Your task to perform on an android device: Show me productivity apps on the Play Store Image 0: 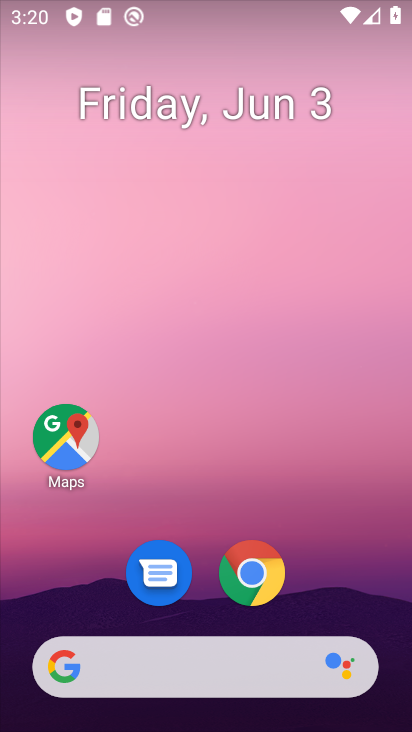
Step 0: drag from (345, 451) to (349, 298)
Your task to perform on an android device: Show me productivity apps on the Play Store Image 1: 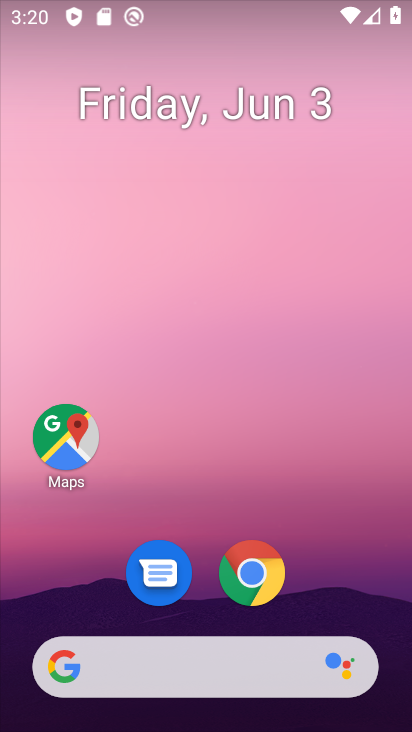
Step 1: drag from (393, 686) to (389, 308)
Your task to perform on an android device: Show me productivity apps on the Play Store Image 2: 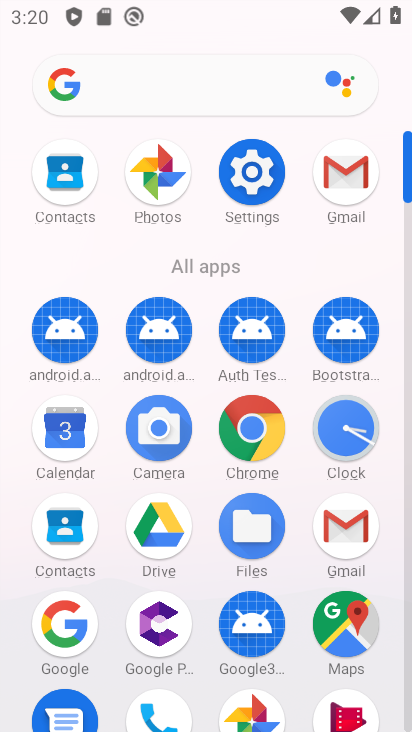
Step 2: drag from (181, 590) to (175, 310)
Your task to perform on an android device: Show me productivity apps on the Play Store Image 3: 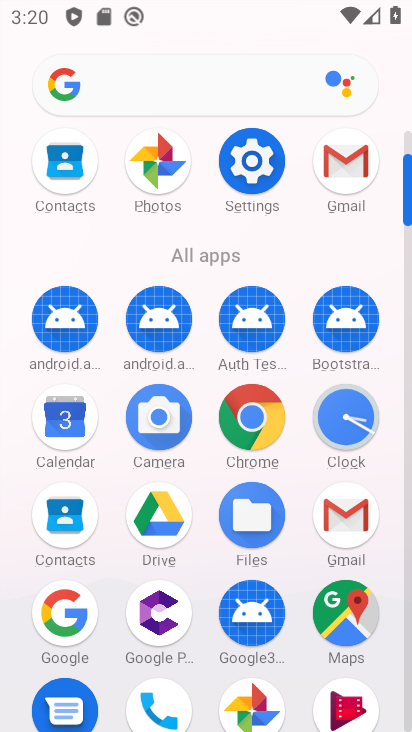
Step 3: drag from (202, 694) to (186, 364)
Your task to perform on an android device: Show me productivity apps on the Play Store Image 4: 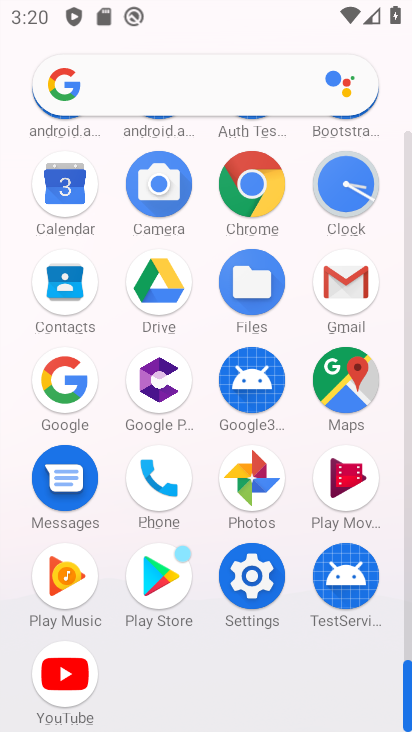
Step 4: click (168, 573)
Your task to perform on an android device: Show me productivity apps on the Play Store Image 5: 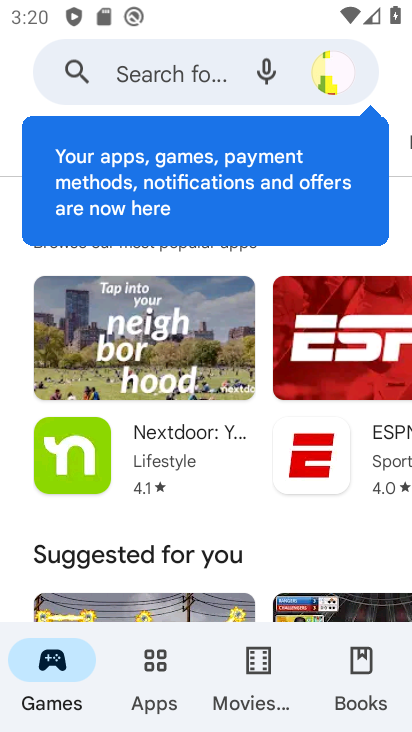
Step 5: click (187, 81)
Your task to perform on an android device: Show me productivity apps on the Play Store Image 6: 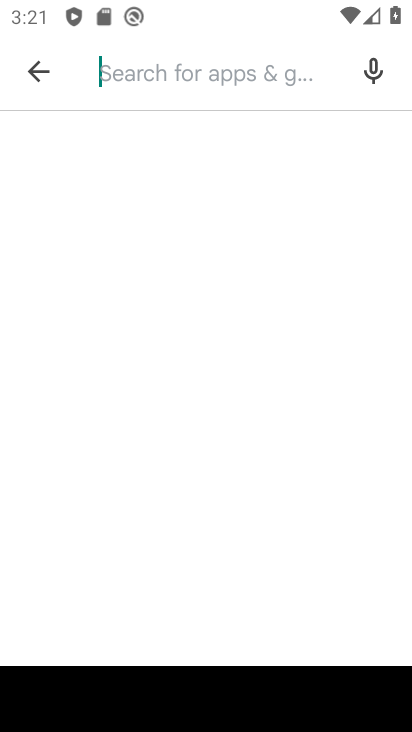
Step 6: type "productivity apps"
Your task to perform on an android device: Show me productivity apps on the Play Store Image 7: 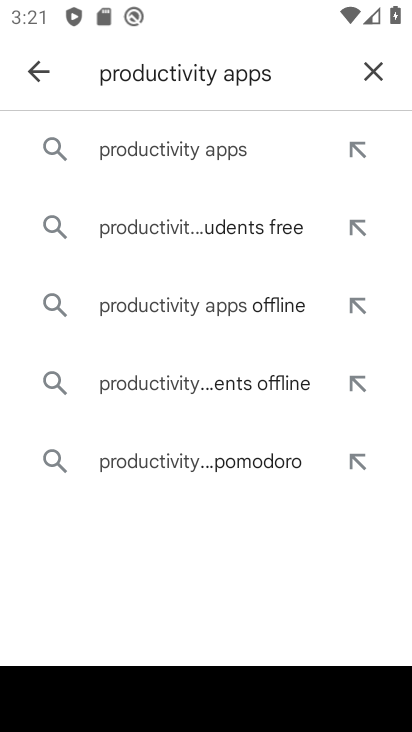
Step 7: click (129, 152)
Your task to perform on an android device: Show me productivity apps on the Play Store Image 8: 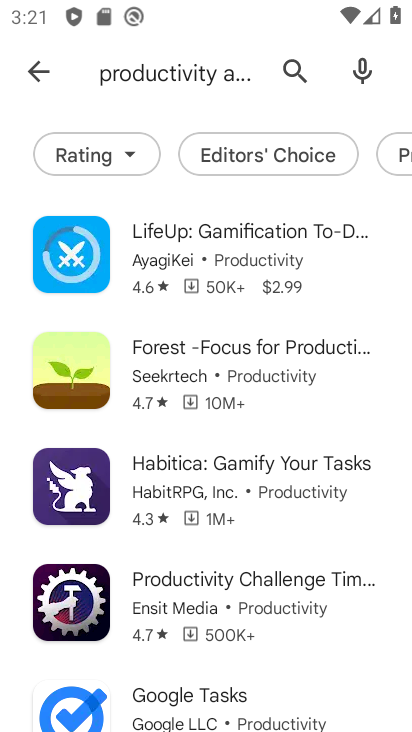
Step 8: task complete